Your task to perform on an android device: Go to ESPN.com Image 0: 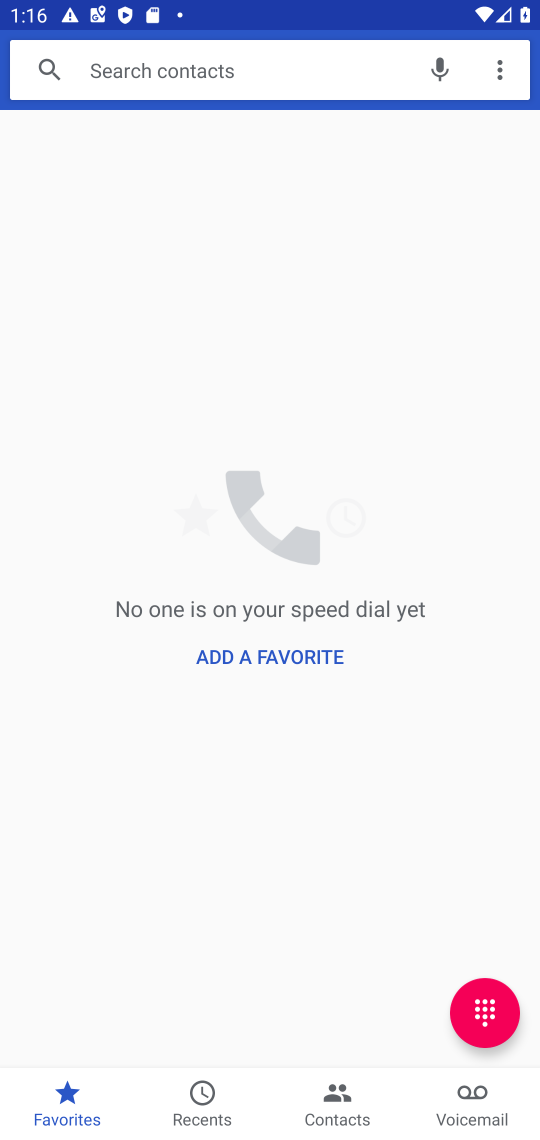
Step 0: press home button
Your task to perform on an android device: Go to ESPN.com Image 1: 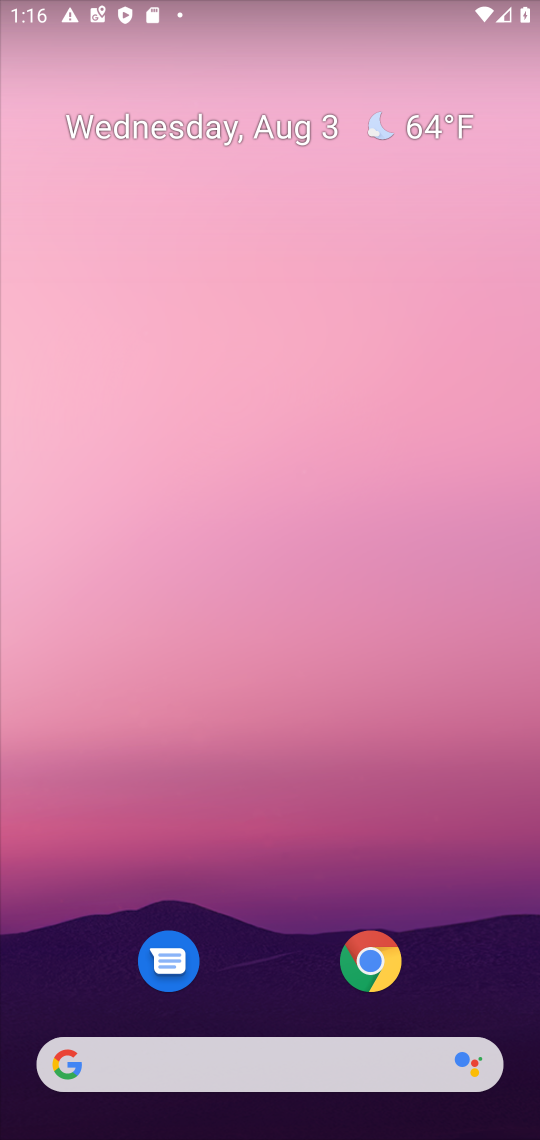
Step 1: click (375, 961)
Your task to perform on an android device: Go to ESPN.com Image 2: 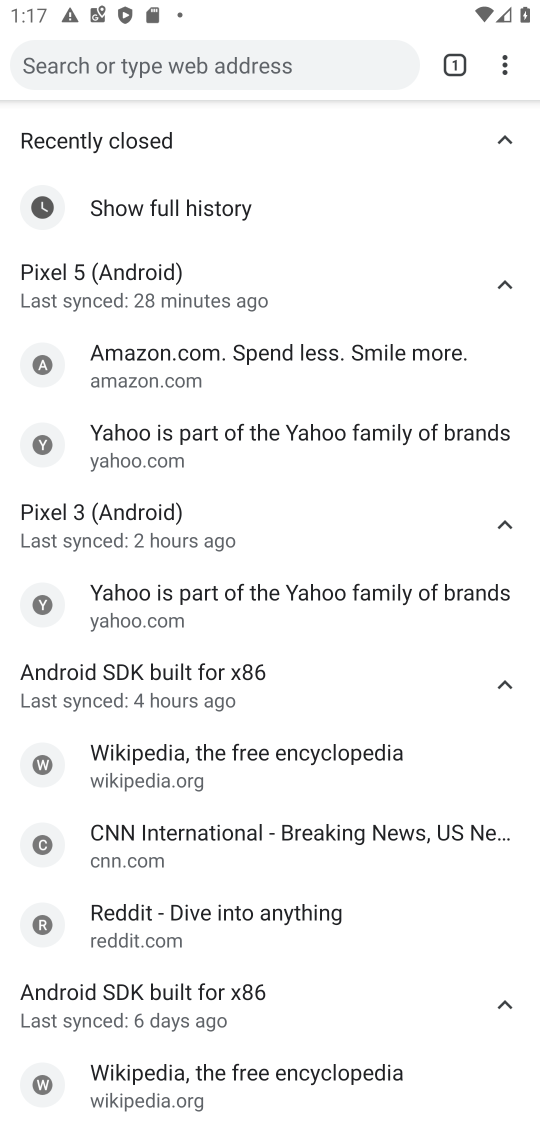
Step 2: click (236, 60)
Your task to perform on an android device: Go to ESPN.com Image 3: 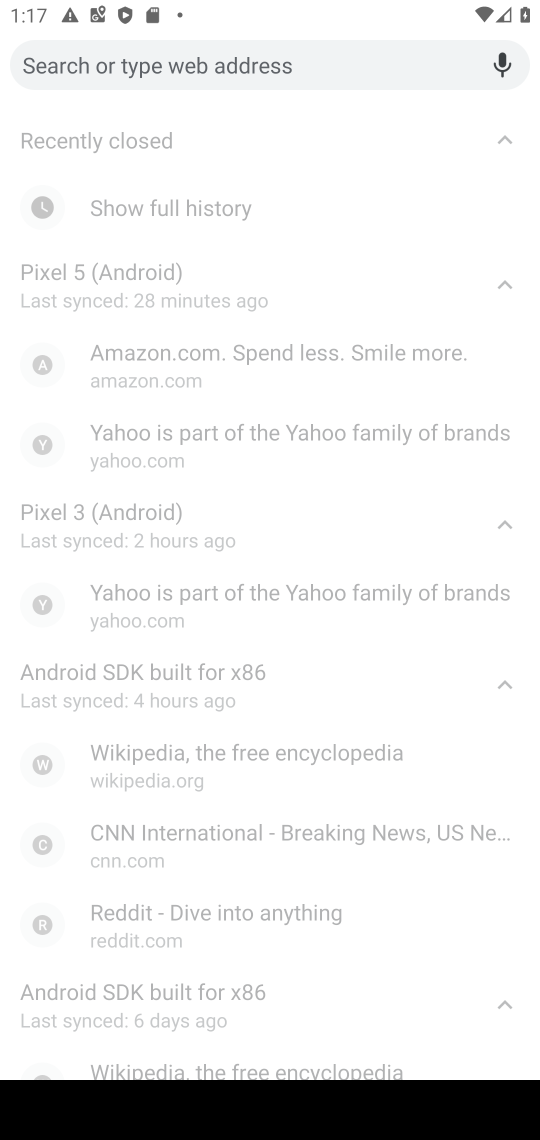
Step 3: type "espn.com"
Your task to perform on an android device: Go to ESPN.com Image 4: 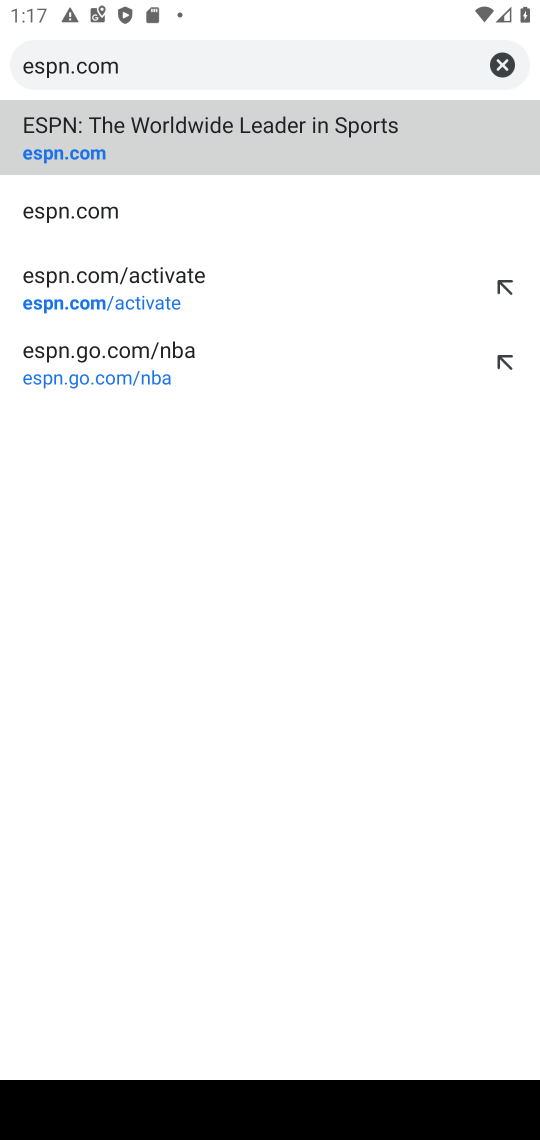
Step 4: click (49, 135)
Your task to perform on an android device: Go to ESPN.com Image 5: 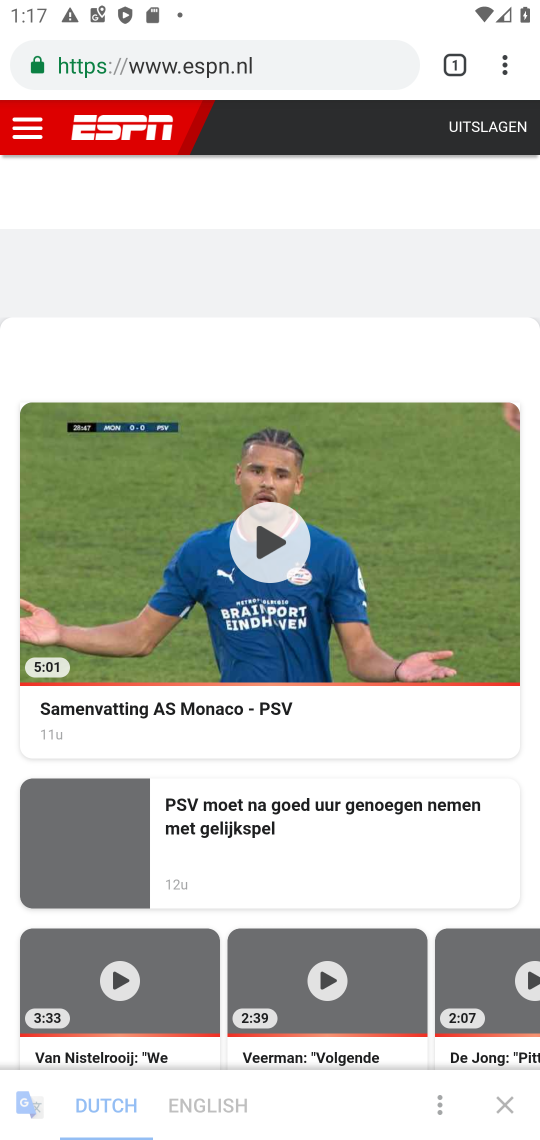
Step 5: task complete